Your task to perform on an android device: change notification settings in the gmail app Image 0: 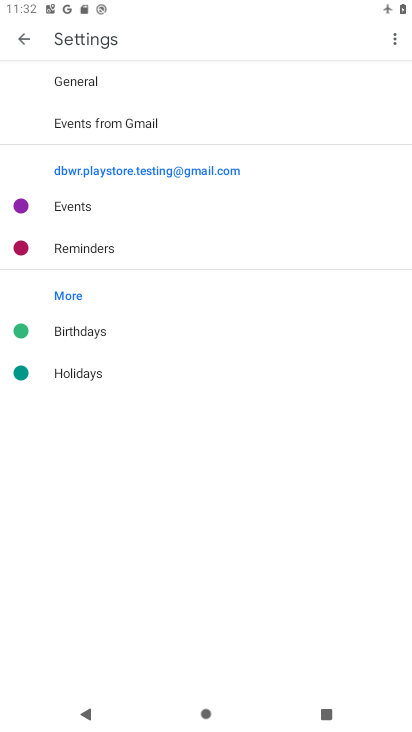
Step 0: press home button
Your task to perform on an android device: change notification settings in the gmail app Image 1: 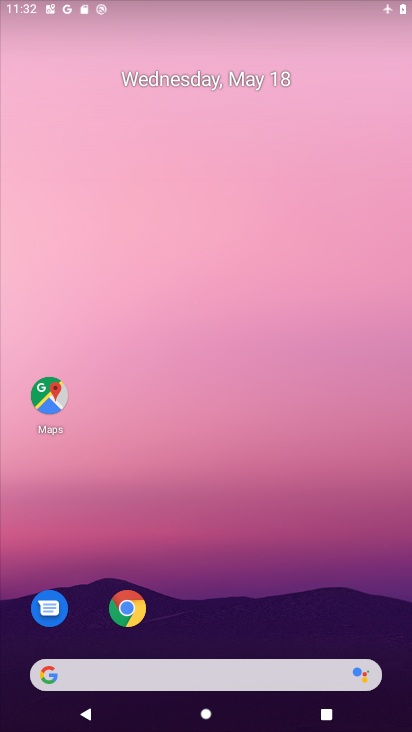
Step 1: drag from (243, 593) to (154, 195)
Your task to perform on an android device: change notification settings in the gmail app Image 2: 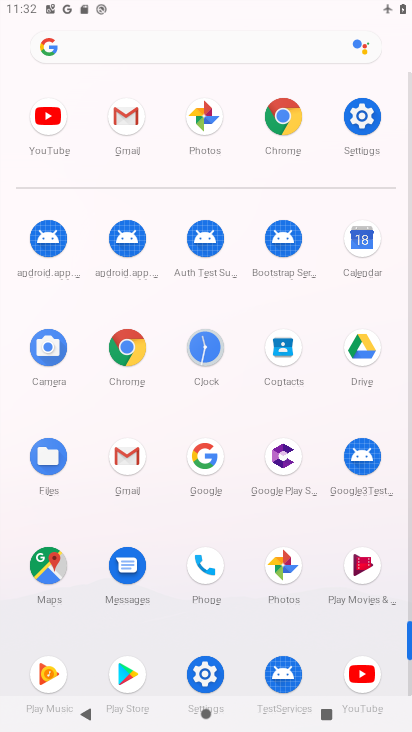
Step 2: click (131, 121)
Your task to perform on an android device: change notification settings in the gmail app Image 3: 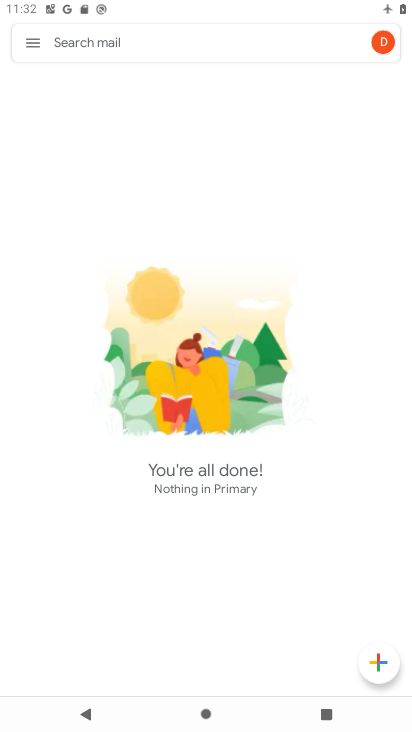
Step 3: click (28, 49)
Your task to perform on an android device: change notification settings in the gmail app Image 4: 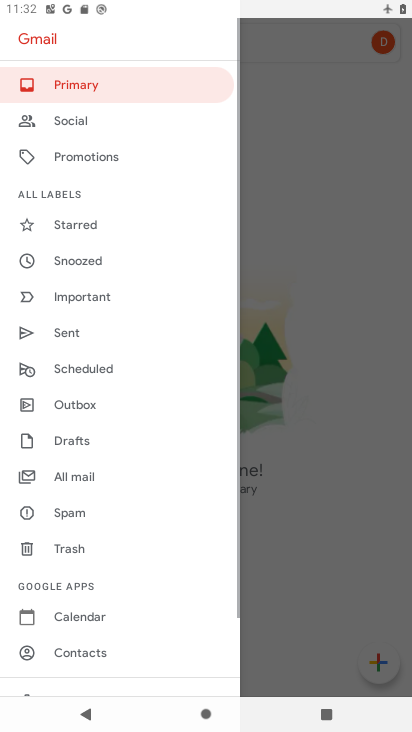
Step 4: drag from (60, 660) to (69, 466)
Your task to perform on an android device: change notification settings in the gmail app Image 5: 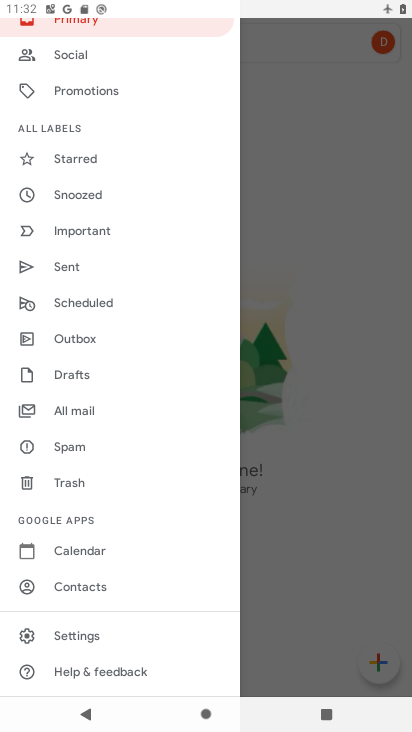
Step 5: click (61, 635)
Your task to perform on an android device: change notification settings in the gmail app Image 6: 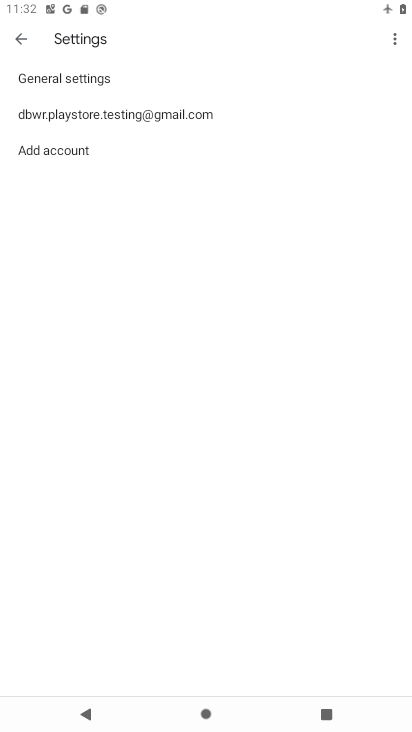
Step 6: click (53, 120)
Your task to perform on an android device: change notification settings in the gmail app Image 7: 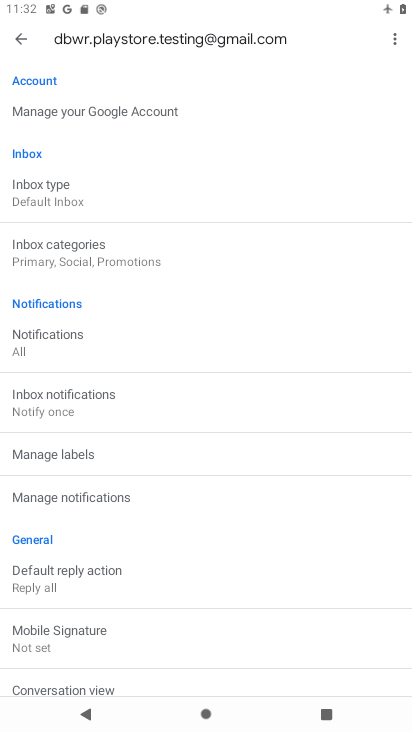
Step 7: click (108, 498)
Your task to perform on an android device: change notification settings in the gmail app Image 8: 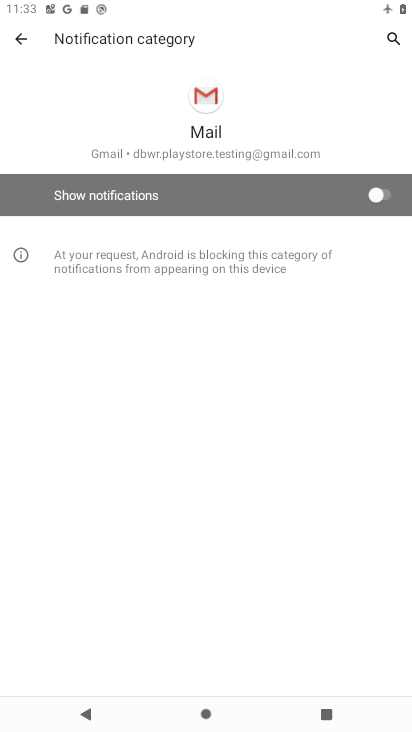
Step 8: click (371, 181)
Your task to perform on an android device: change notification settings in the gmail app Image 9: 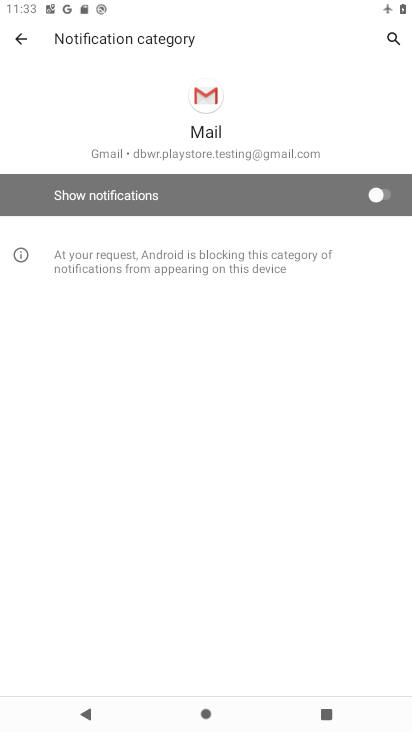
Step 9: click (379, 203)
Your task to perform on an android device: change notification settings in the gmail app Image 10: 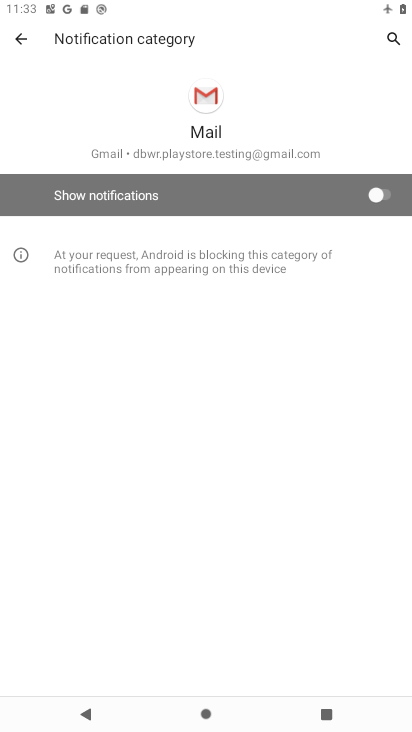
Step 10: click (378, 200)
Your task to perform on an android device: change notification settings in the gmail app Image 11: 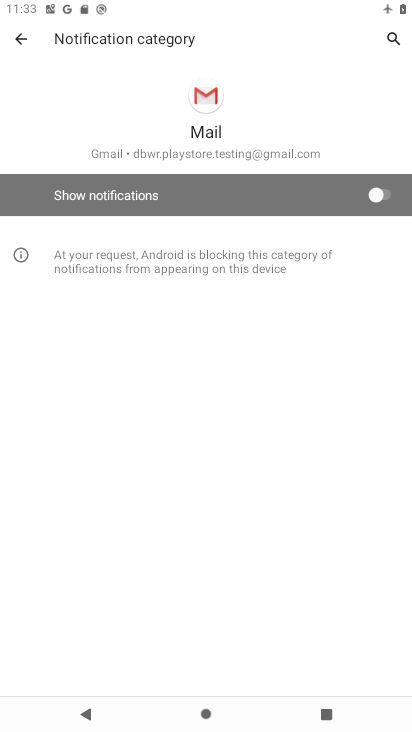
Step 11: click (18, 37)
Your task to perform on an android device: change notification settings in the gmail app Image 12: 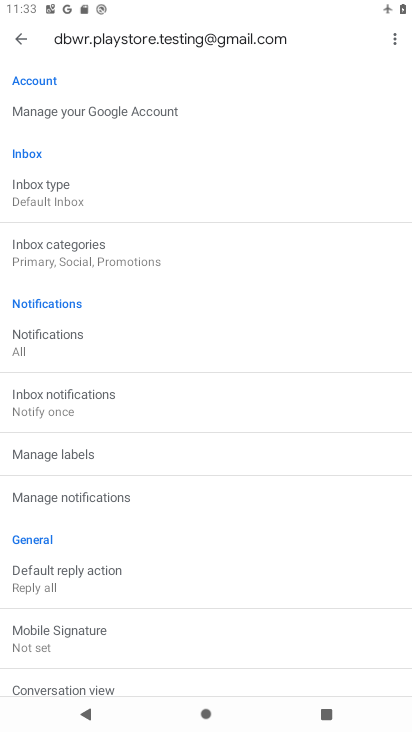
Step 12: click (26, 340)
Your task to perform on an android device: change notification settings in the gmail app Image 13: 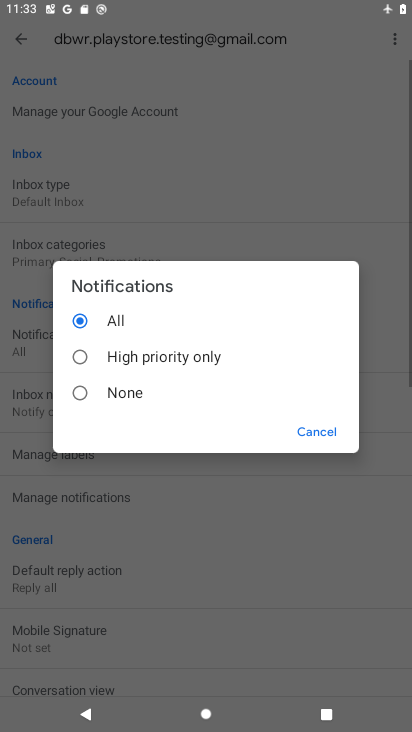
Step 13: click (103, 381)
Your task to perform on an android device: change notification settings in the gmail app Image 14: 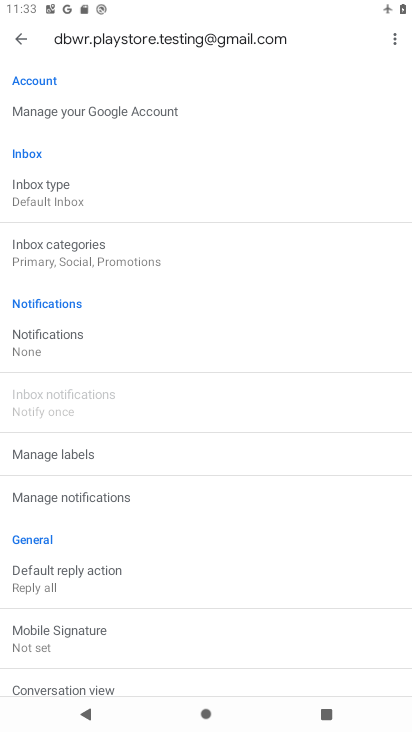
Step 14: task complete